Your task to perform on an android device: Open the Play Movies app and select the watchlist tab. Image 0: 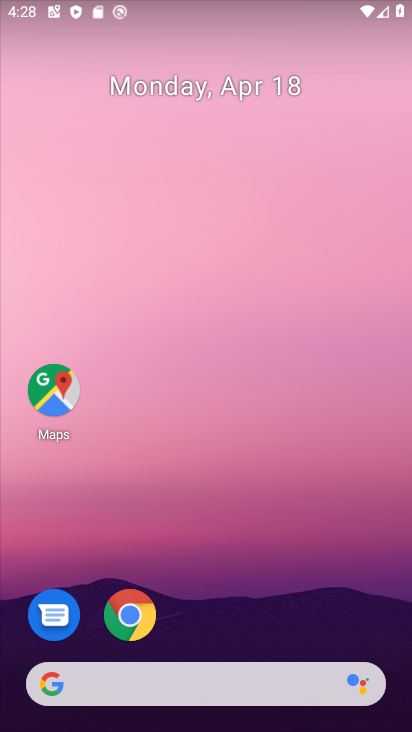
Step 0: drag from (300, 555) to (283, 164)
Your task to perform on an android device: Open the Play Movies app and select the watchlist tab. Image 1: 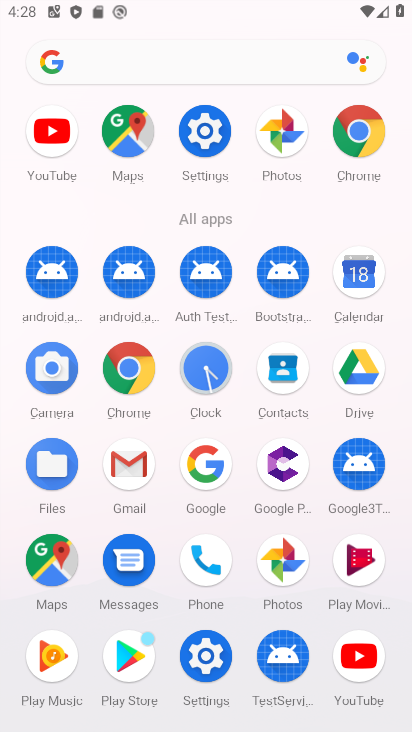
Step 1: click (366, 548)
Your task to perform on an android device: Open the Play Movies app and select the watchlist tab. Image 2: 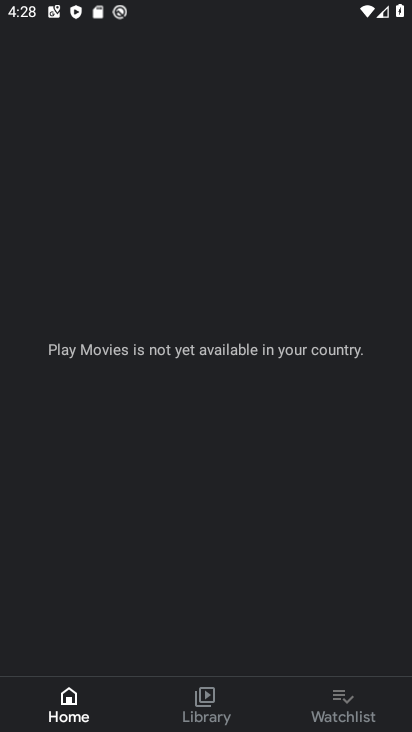
Step 2: click (365, 692)
Your task to perform on an android device: Open the Play Movies app and select the watchlist tab. Image 3: 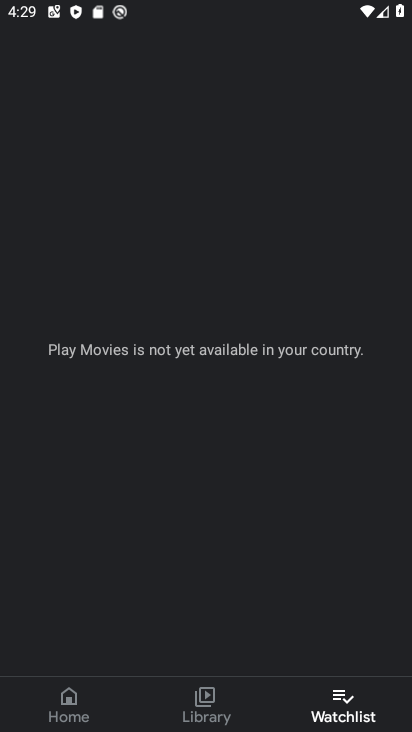
Step 3: task complete